Your task to perform on an android device: Open ESPN.com Image 0: 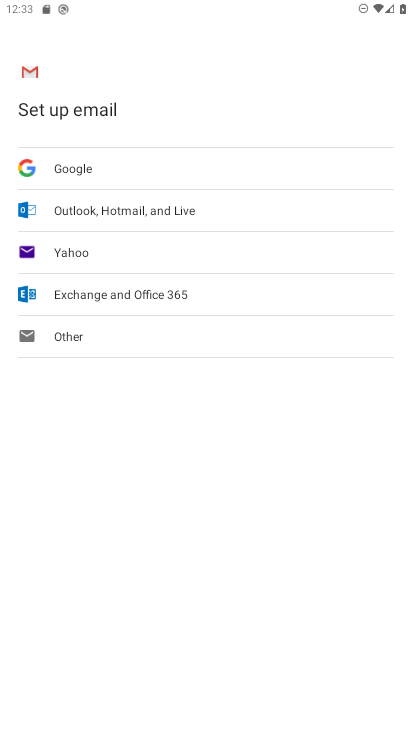
Step 0: press home button
Your task to perform on an android device: Open ESPN.com Image 1: 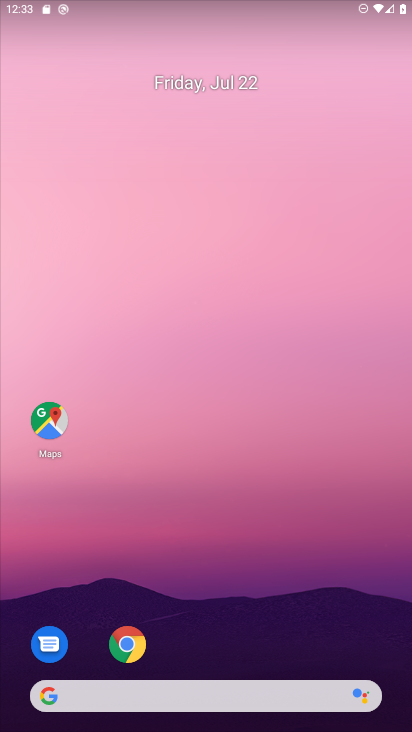
Step 1: click (224, 680)
Your task to perform on an android device: Open ESPN.com Image 2: 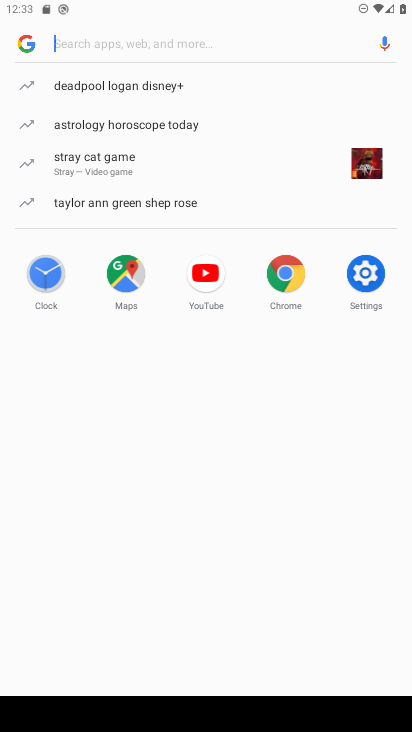
Step 2: click (282, 290)
Your task to perform on an android device: Open ESPN.com Image 3: 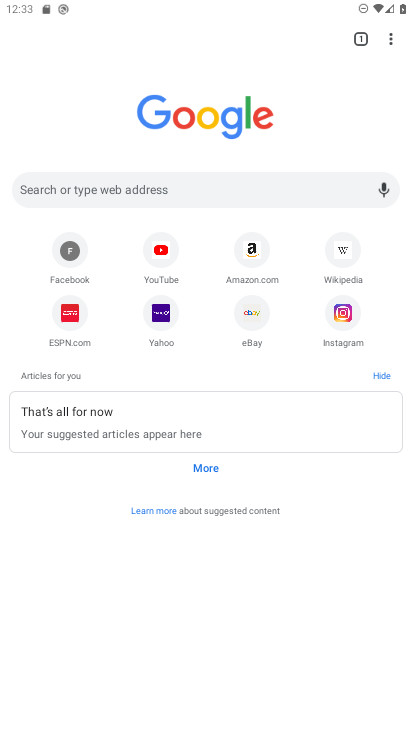
Step 3: click (282, 290)
Your task to perform on an android device: Open ESPN.com Image 4: 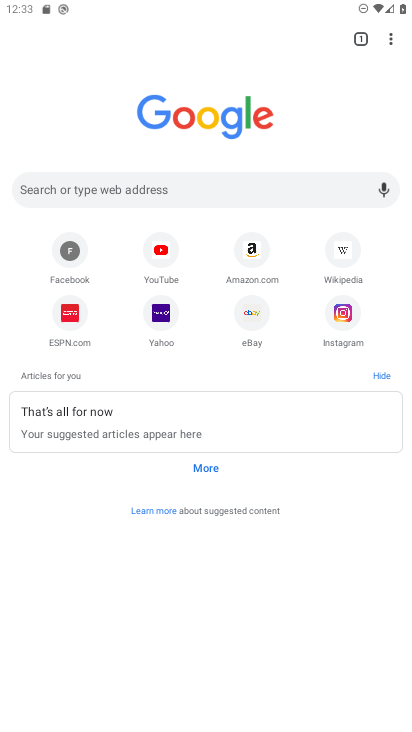
Step 4: click (78, 315)
Your task to perform on an android device: Open ESPN.com Image 5: 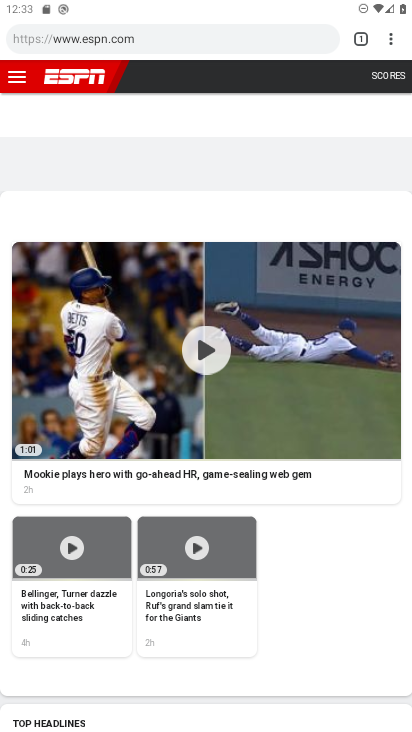
Step 5: task complete